Your task to perform on an android device: When is my next meeting? Image 0: 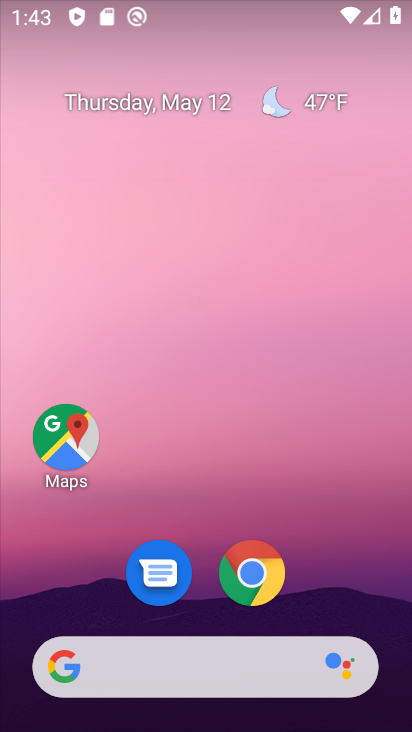
Step 0: click (150, 102)
Your task to perform on an android device: When is my next meeting? Image 1: 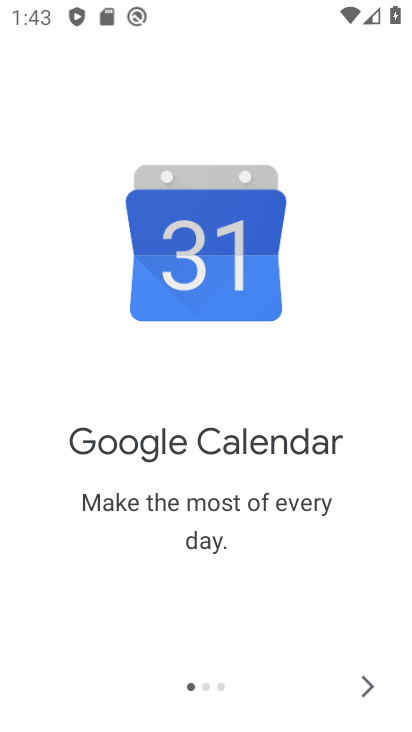
Step 1: click (366, 681)
Your task to perform on an android device: When is my next meeting? Image 2: 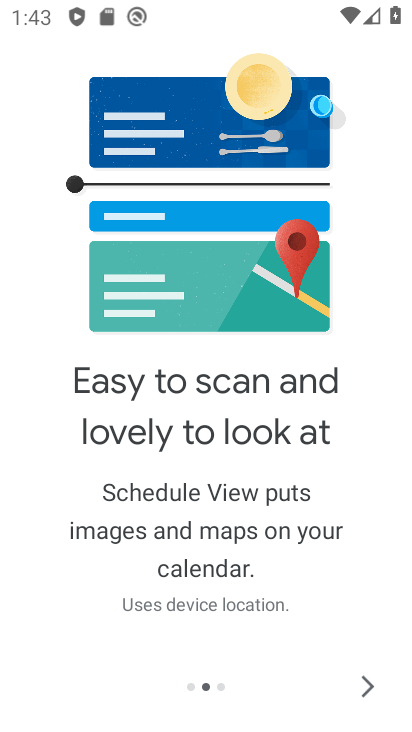
Step 2: click (366, 681)
Your task to perform on an android device: When is my next meeting? Image 3: 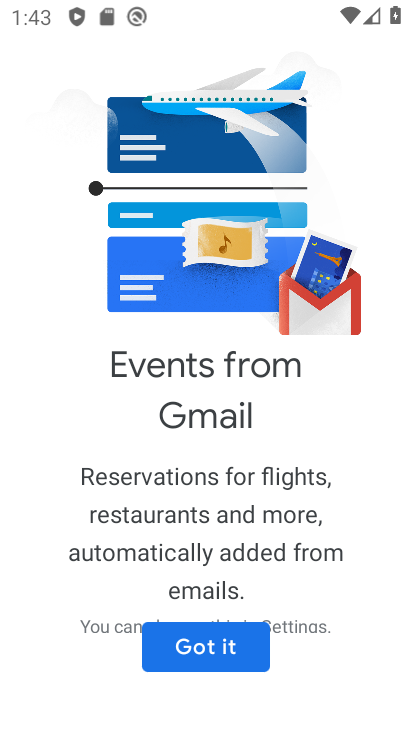
Step 3: click (227, 648)
Your task to perform on an android device: When is my next meeting? Image 4: 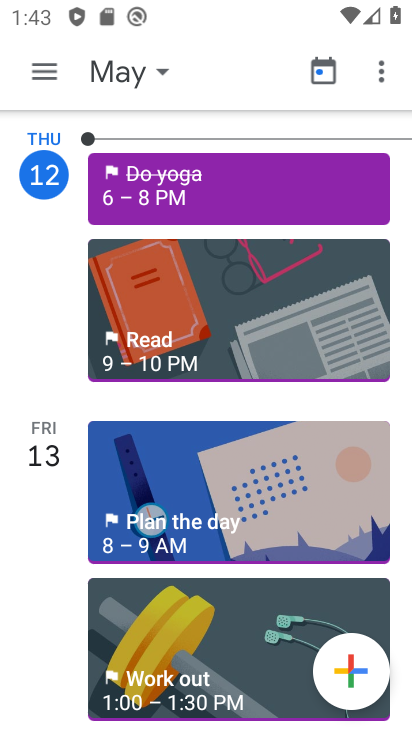
Step 4: click (61, 92)
Your task to perform on an android device: When is my next meeting? Image 5: 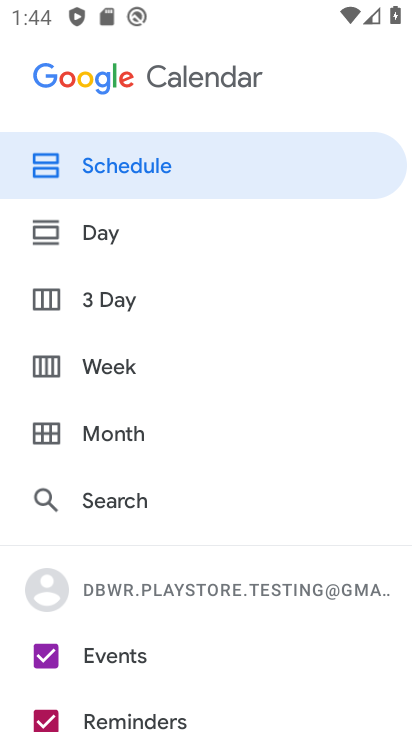
Step 5: task complete